Your task to perform on an android device: open device folders in google photos Image 0: 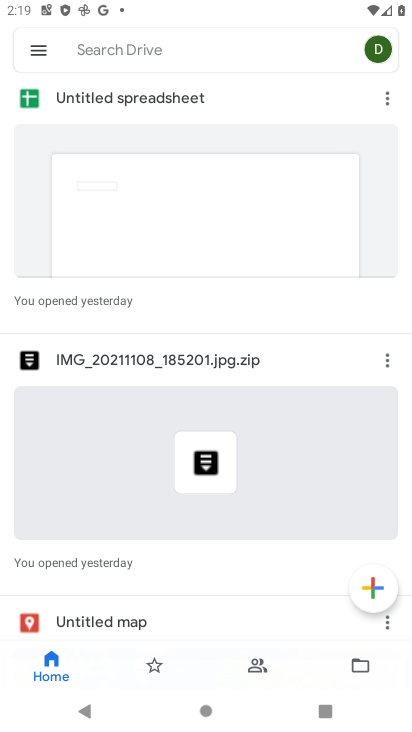
Step 0: press home button
Your task to perform on an android device: open device folders in google photos Image 1: 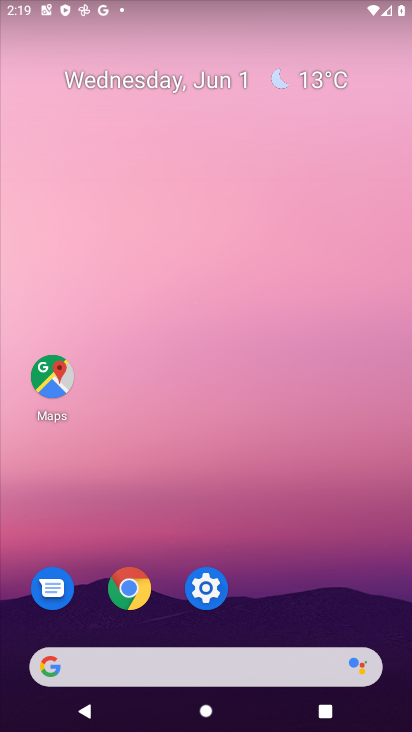
Step 1: drag from (195, 683) to (257, 325)
Your task to perform on an android device: open device folders in google photos Image 2: 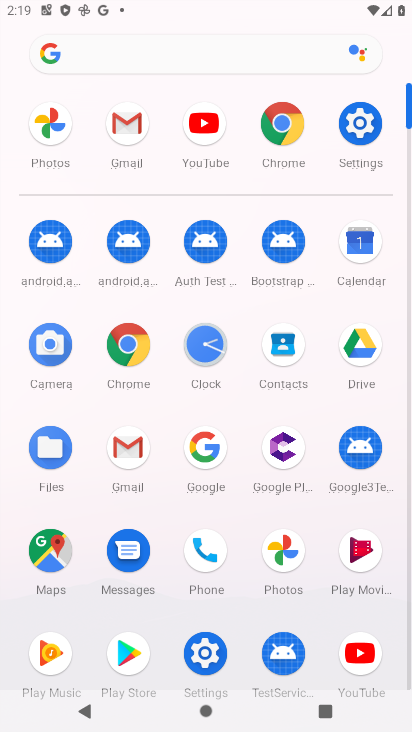
Step 2: click (283, 552)
Your task to perform on an android device: open device folders in google photos Image 3: 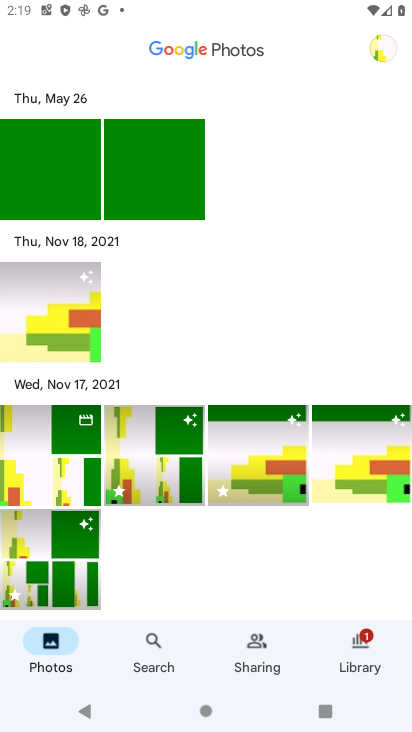
Step 3: click (149, 638)
Your task to perform on an android device: open device folders in google photos Image 4: 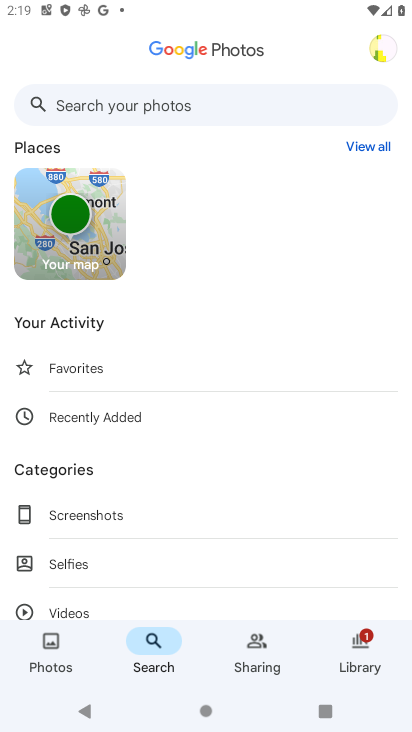
Step 4: click (154, 110)
Your task to perform on an android device: open device folders in google photos Image 5: 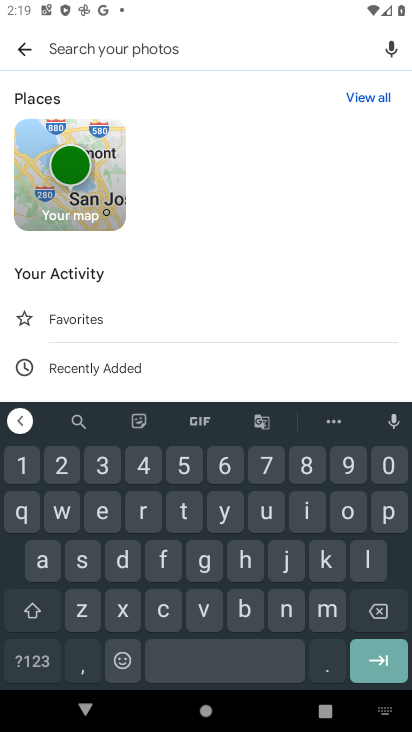
Step 5: click (122, 566)
Your task to perform on an android device: open device folders in google photos Image 6: 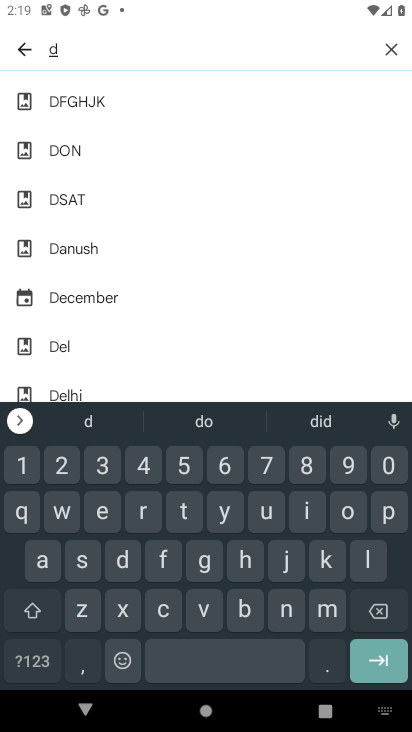
Step 6: click (101, 515)
Your task to perform on an android device: open device folders in google photos Image 7: 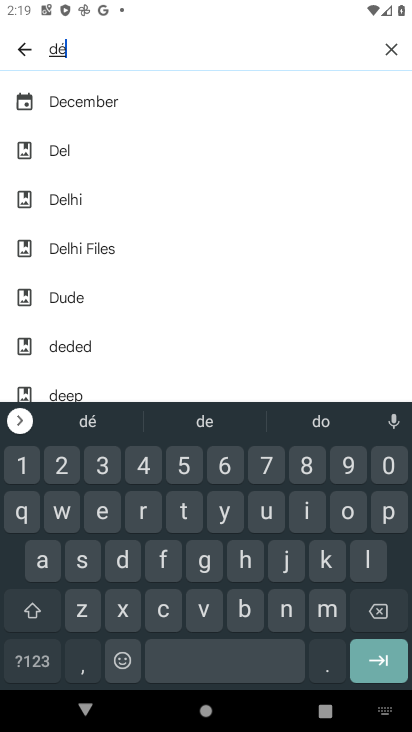
Step 7: click (204, 618)
Your task to perform on an android device: open device folders in google photos Image 8: 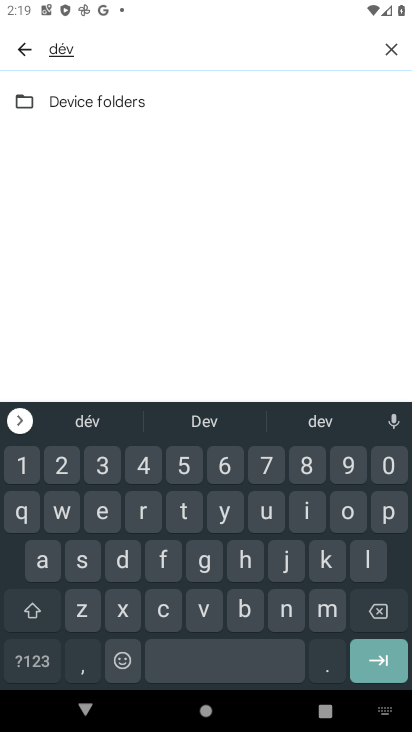
Step 8: click (146, 107)
Your task to perform on an android device: open device folders in google photos Image 9: 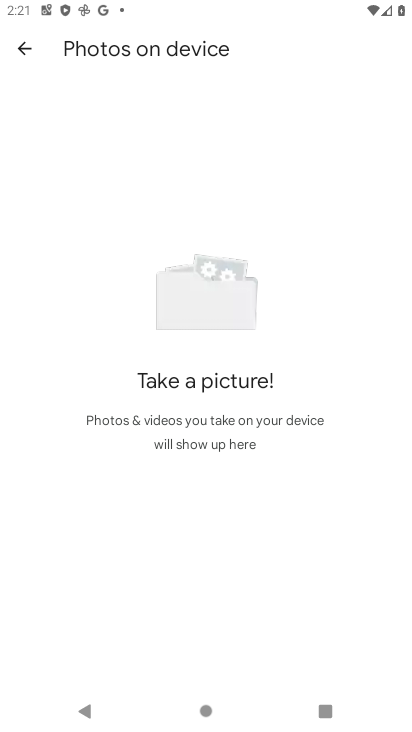
Step 9: task complete